Your task to perform on an android device: see creations saved in the google photos Image 0: 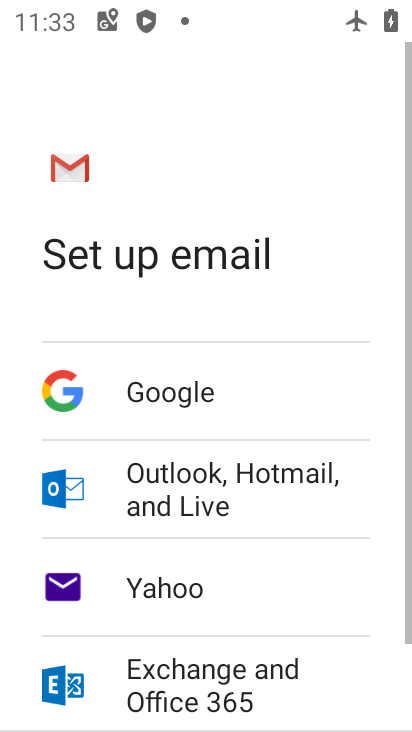
Step 0: press home button
Your task to perform on an android device: see creations saved in the google photos Image 1: 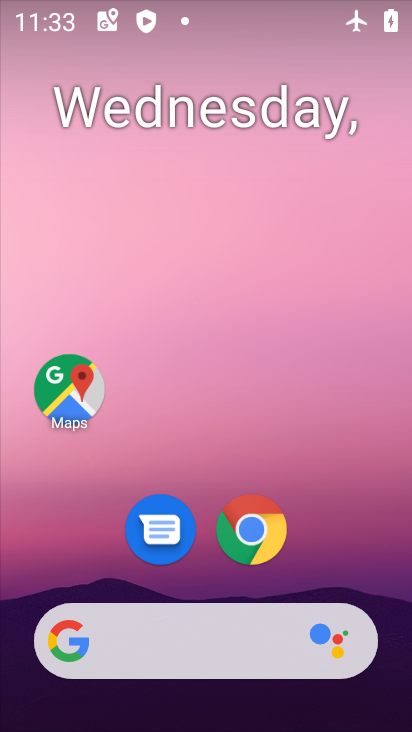
Step 1: drag from (209, 599) to (156, 17)
Your task to perform on an android device: see creations saved in the google photos Image 2: 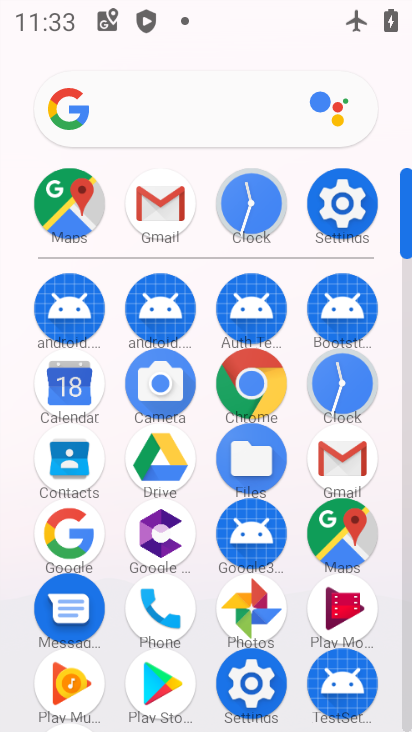
Step 2: click (251, 604)
Your task to perform on an android device: see creations saved in the google photos Image 3: 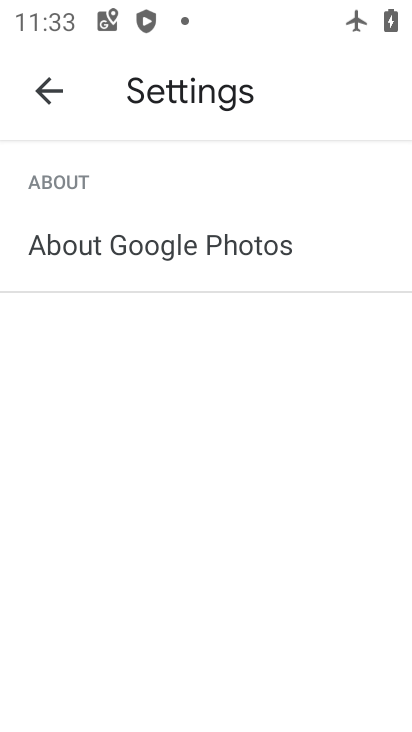
Step 3: click (40, 95)
Your task to perform on an android device: see creations saved in the google photos Image 4: 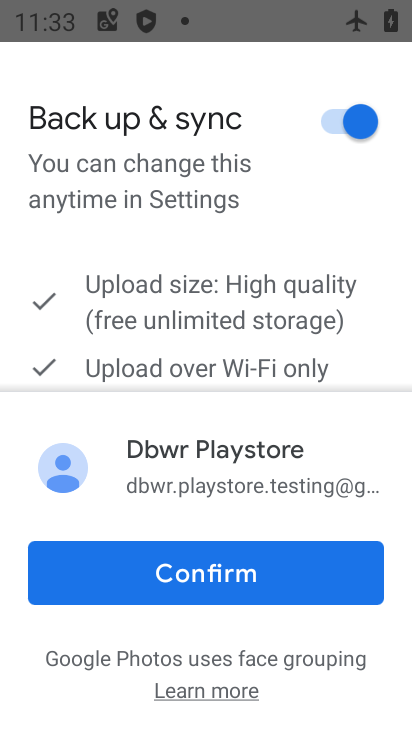
Step 4: click (245, 565)
Your task to perform on an android device: see creations saved in the google photos Image 5: 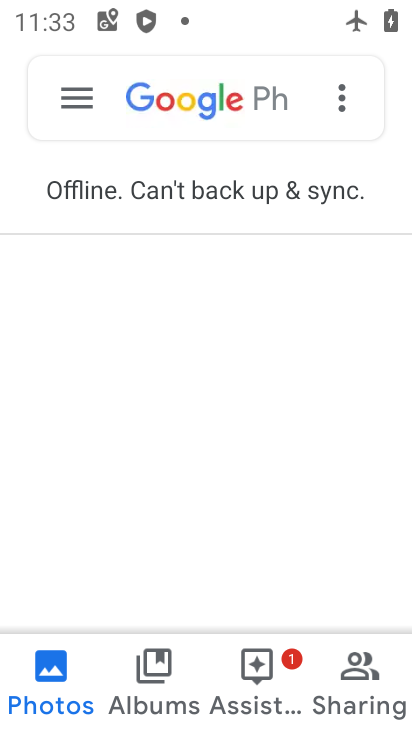
Step 5: click (218, 121)
Your task to perform on an android device: see creations saved in the google photos Image 6: 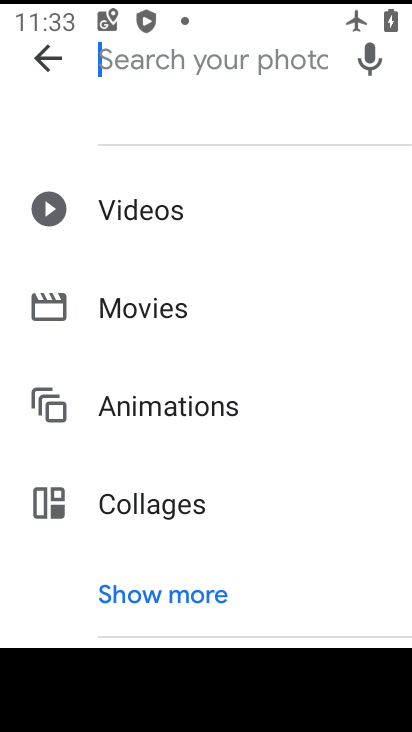
Step 6: click (193, 575)
Your task to perform on an android device: see creations saved in the google photos Image 7: 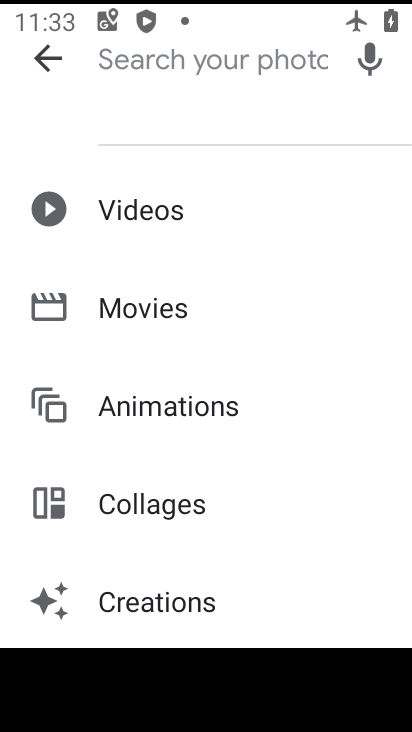
Step 7: drag from (193, 575) to (167, 153)
Your task to perform on an android device: see creations saved in the google photos Image 8: 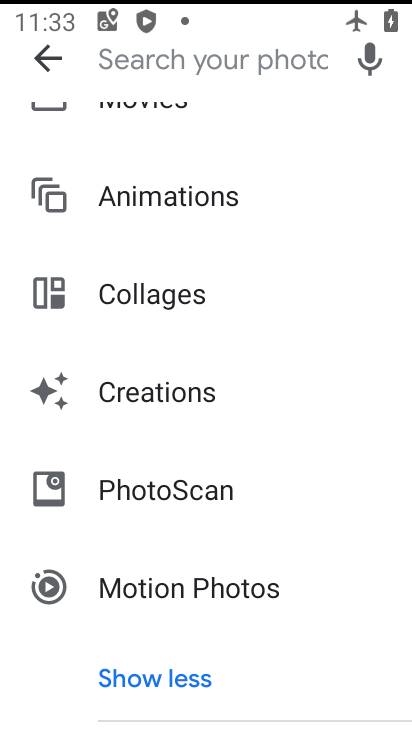
Step 8: click (156, 375)
Your task to perform on an android device: see creations saved in the google photos Image 9: 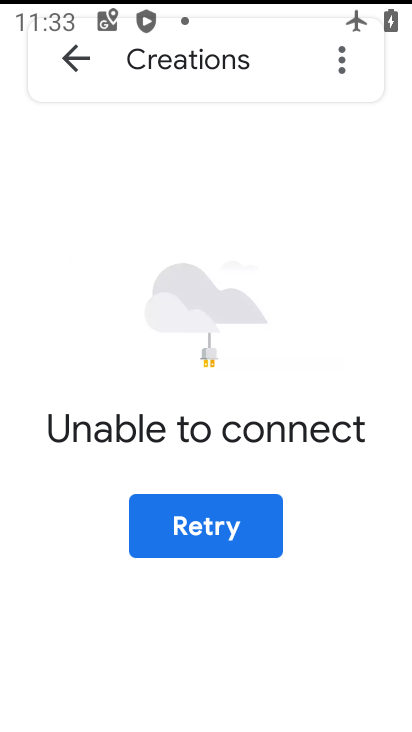
Step 9: task complete